Your task to perform on an android device: uninstall "Nova Launcher" Image 0: 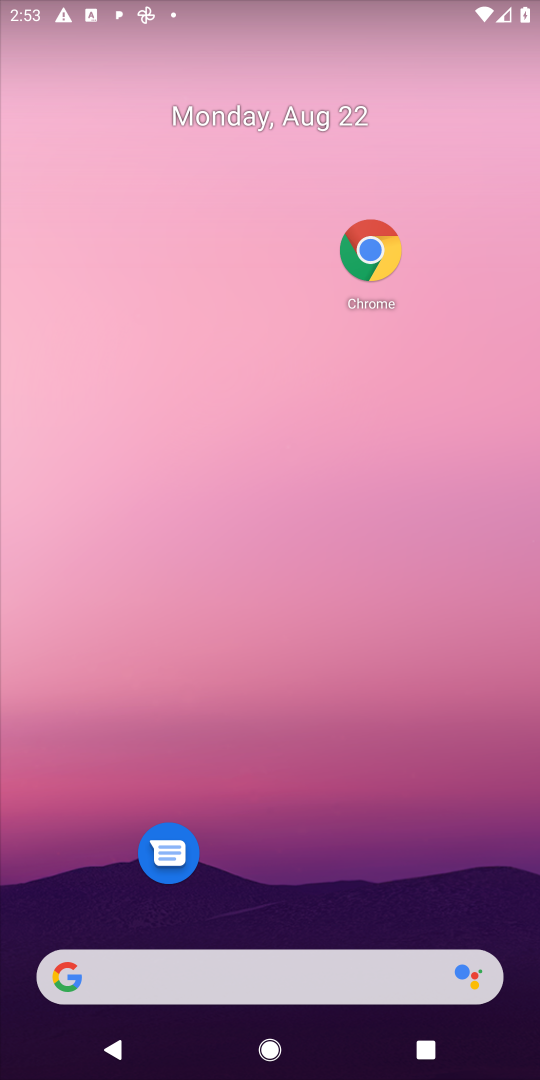
Step 0: drag from (246, 779) to (236, 178)
Your task to perform on an android device: uninstall "Nova Launcher" Image 1: 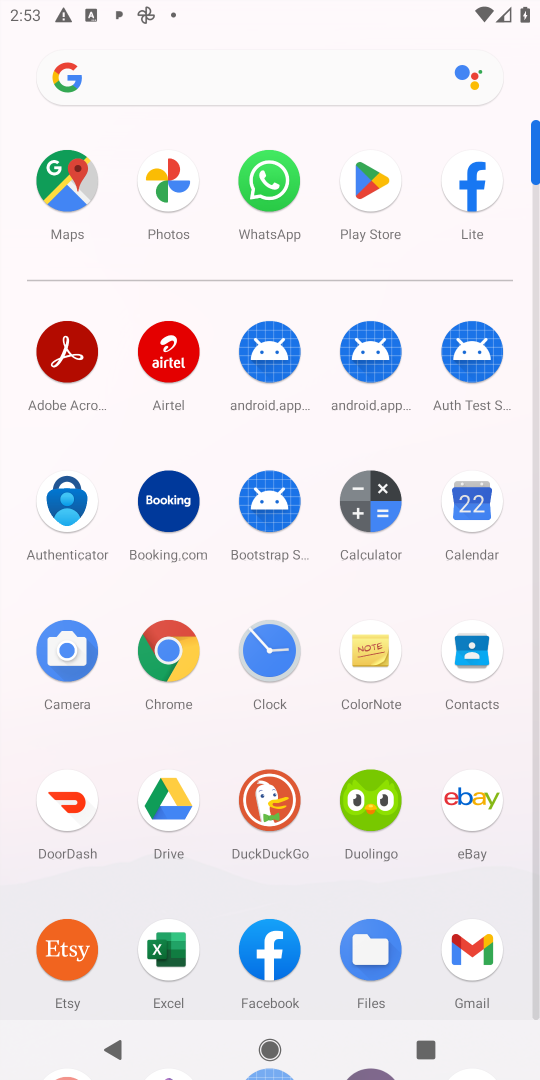
Step 1: click (371, 178)
Your task to perform on an android device: uninstall "Nova Launcher" Image 2: 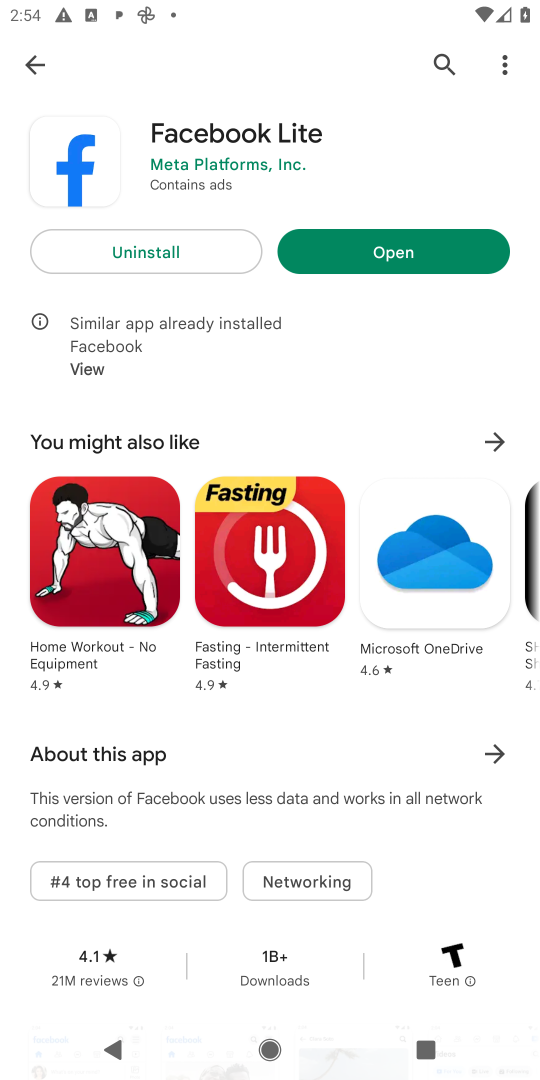
Step 2: click (35, 74)
Your task to perform on an android device: uninstall "Nova Launcher" Image 3: 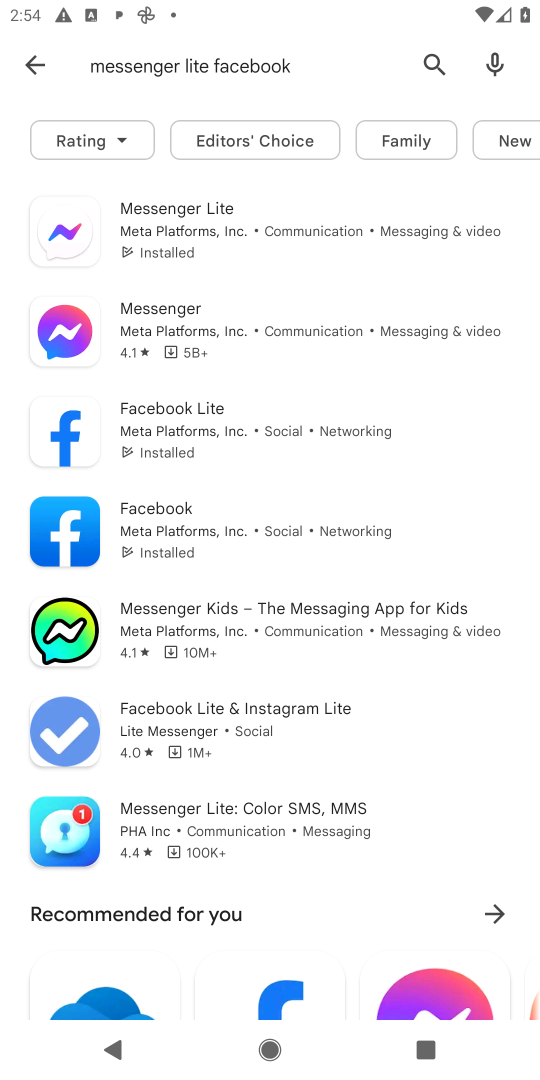
Step 3: click (35, 80)
Your task to perform on an android device: uninstall "Nova Launcher" Image 4: 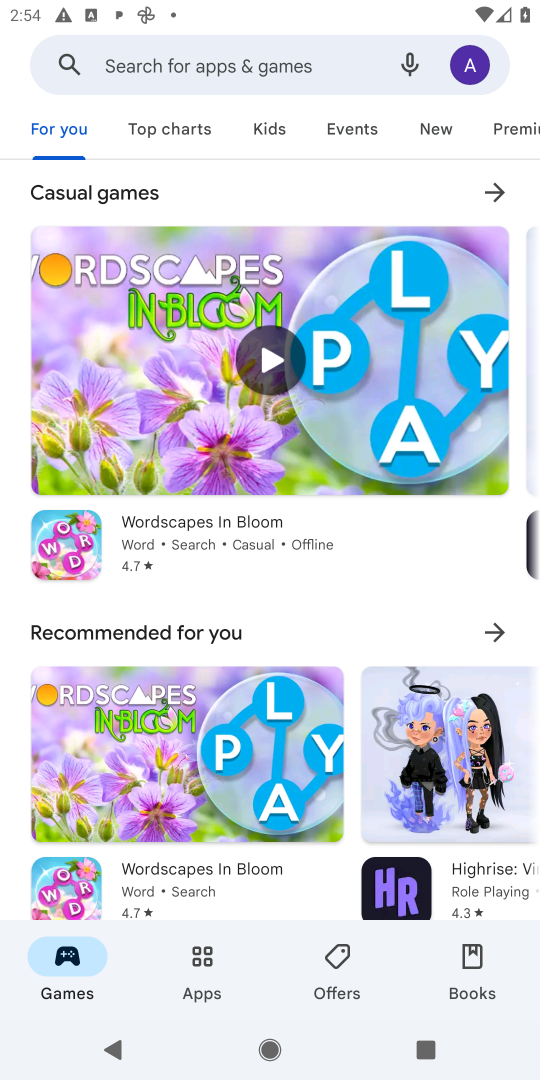
Step 4: click (164, 46)
Your task to perform on an android device: uninstall "Nova Launcher" Image 5: 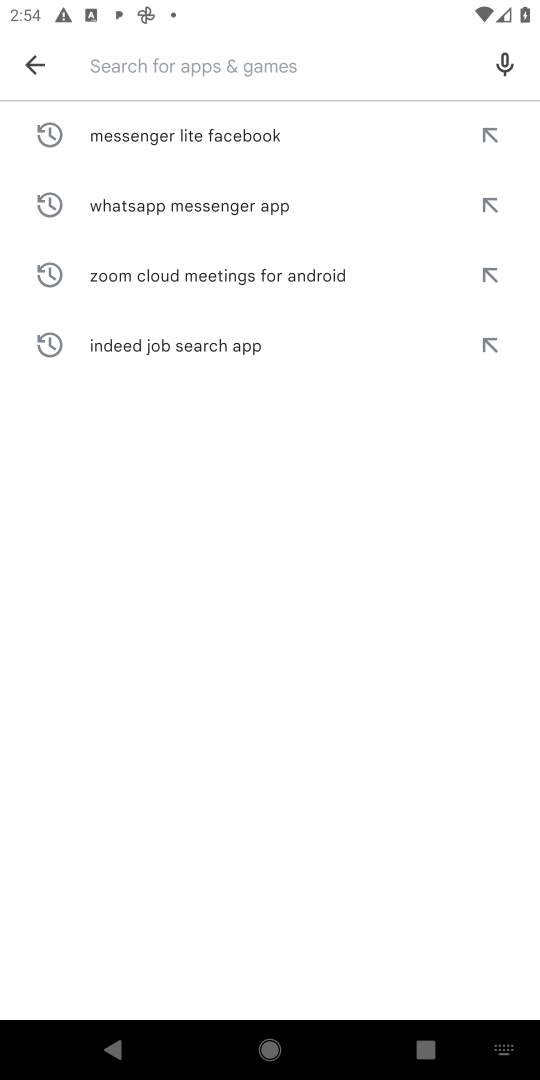
Step 5: type "Nova Launcher "
Your task to perform on an android device: uninstall "Nova Launcher" Image 6: 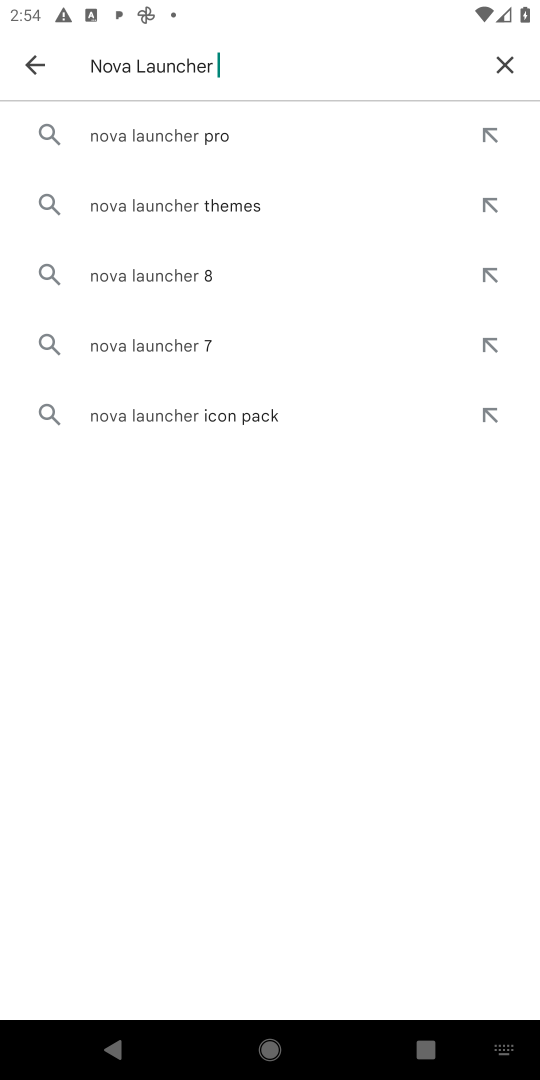
Step 6: click (168, 123)
Your task to perform on an android device: uninstall "Nova Launcher" Image 7: 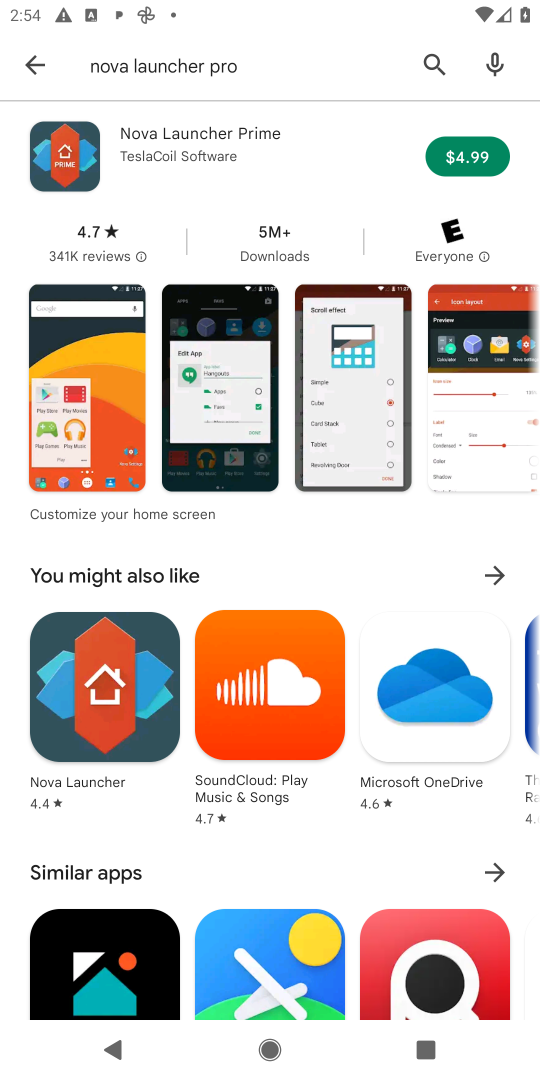
Step 7: task complete